Your task to perform on an android device: Show me popular videos on Youtube Image 0: 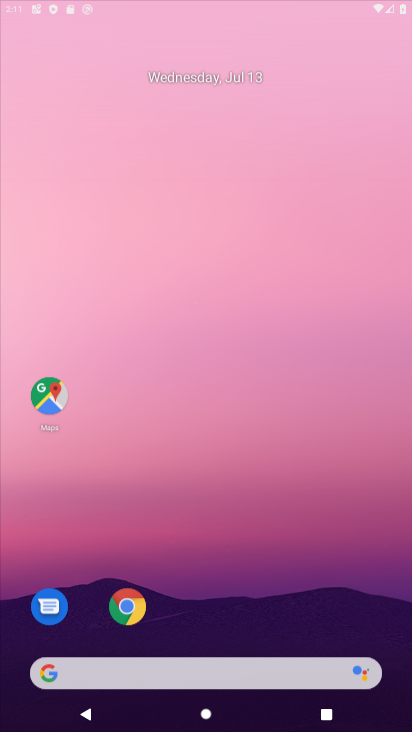
Step 0: click (239, 129)
Your task to perform on an android device: Show me popular videos on Youtube Image 1: 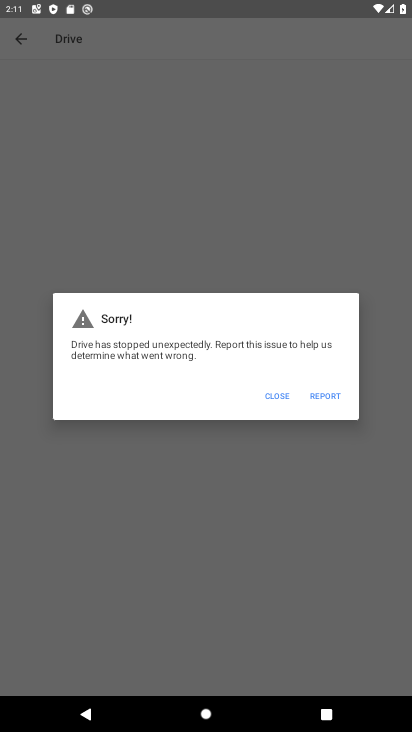
Step 1: click (274, 397)
Your task to perform on an android device: Show me popular videos on Youtube Image 2: 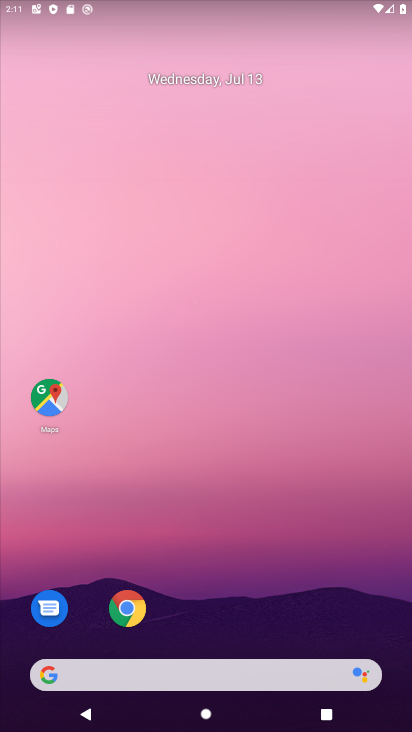
Step 2: drag from (214, 602) to (175, 8)
Your task to perform on an android device: Show me popular videos on Youtube Image 3: 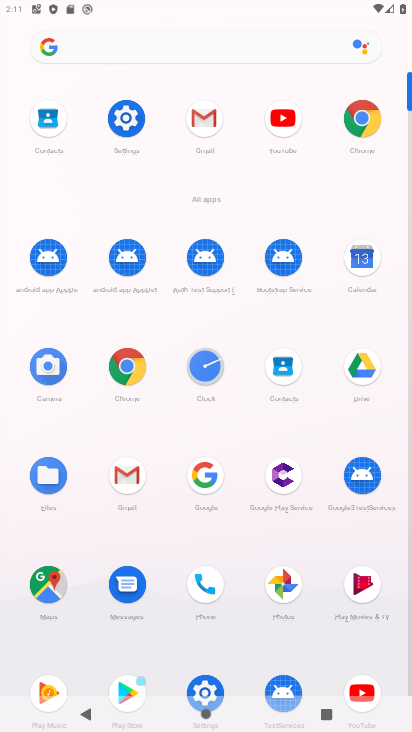
Step 3: click (287, 147)
Your task to perform on an android device: Show me popular videos on Youtube Image 4: 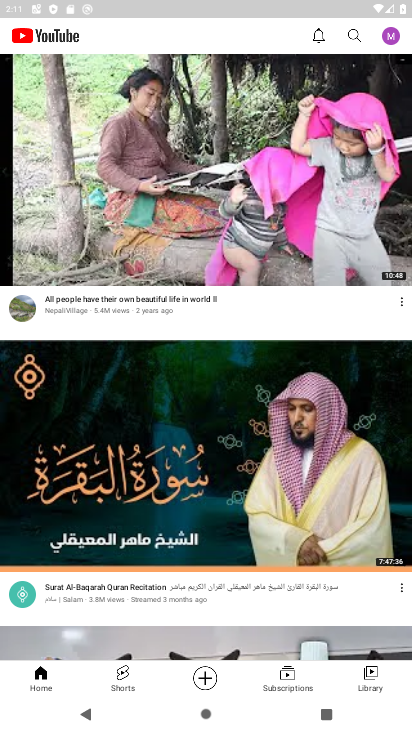
Step 4: task complete